Your task to perform on an android device: set default search engine in the chrome app Image 0: 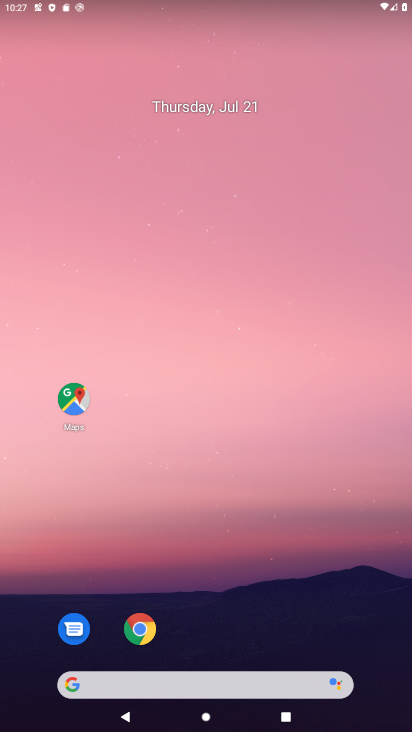
Step 0: click (143, 636)
Your task to perform on an android device: set default search engine in the chrome app Image 1: 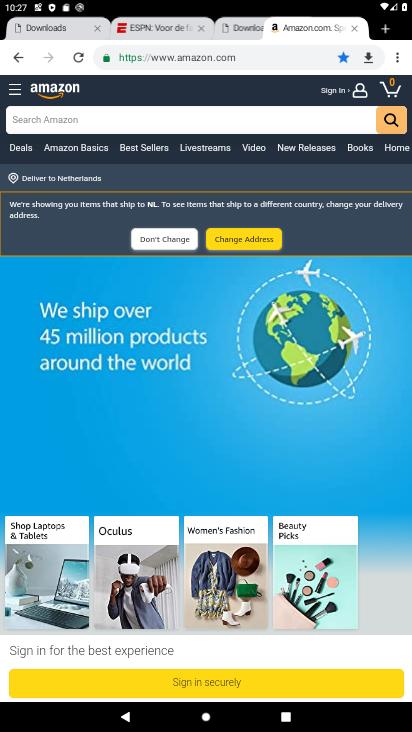
Step 1: click (403, 57)
Your task to perform on an android device: set default search engine in the chrome app Image 2: 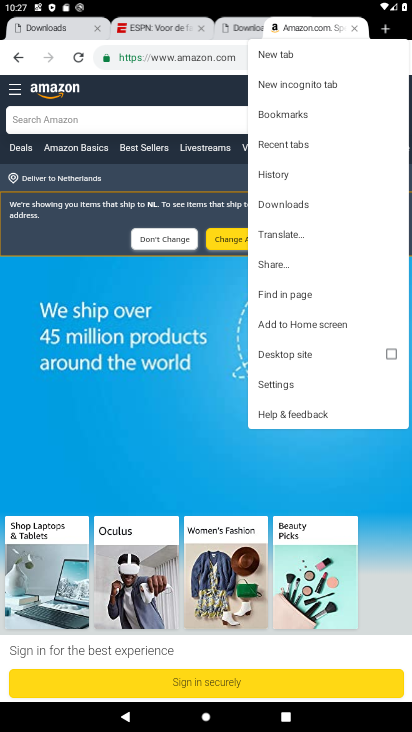
Step 2: click (281, 383)
Your task to perform on an android device: set default search engine in the chrome app Image 3: 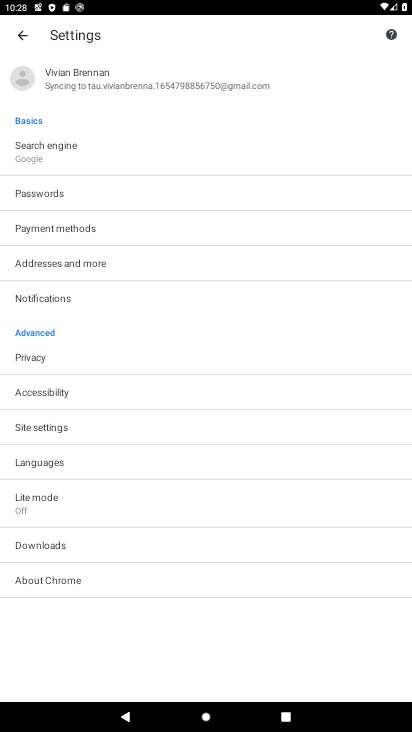
Step 3: click (85, 150)
Your task to perform on an android device: set default search engine in the chrome app Image 4: 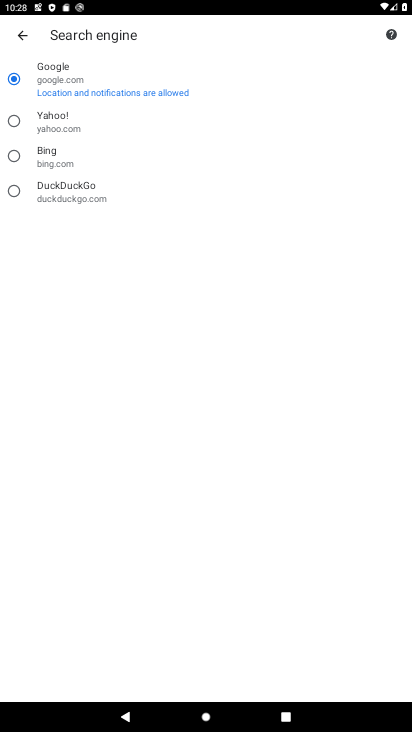
Step 4: click (85, 150)
Your task to perform on an android device: set default search engine in the chrome app Image 5: 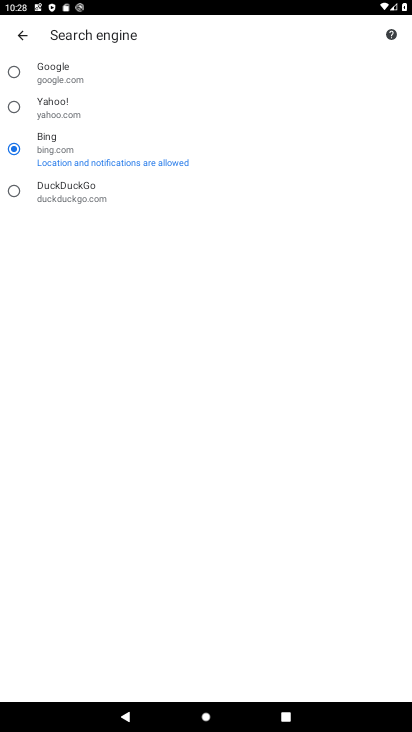
Step 5: task complete